Your task to perform on an android device: add a contact in the contacts app Image 0: 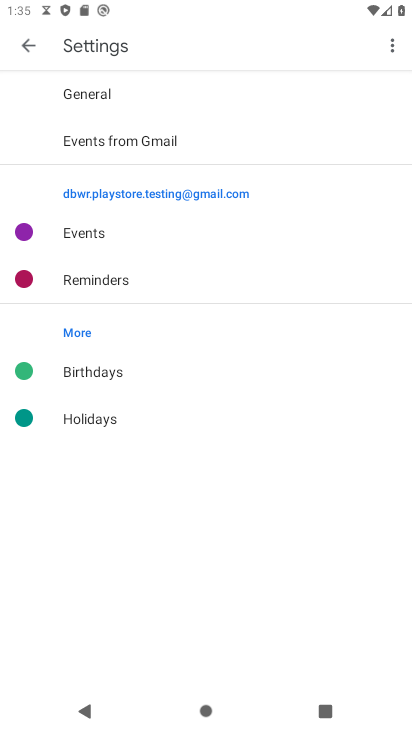
Step 0: press home button
Your task to perform on an android device: add a contact in the contacts app Image 1: 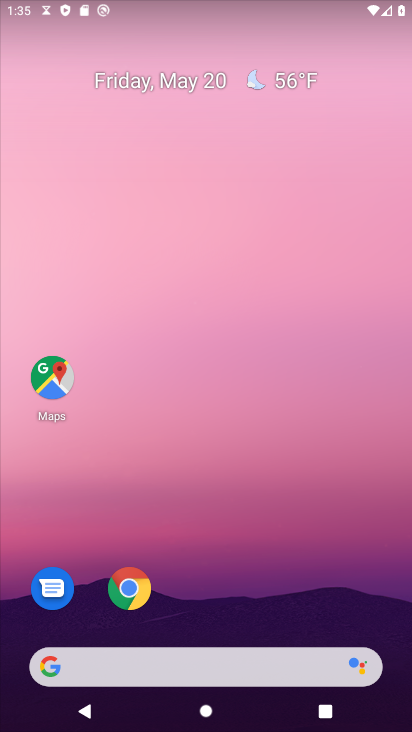
Step 1: drag from (26, 565) to (264, 48)
Your task to perform on an android device: add a contact in the contacts app Image 2: 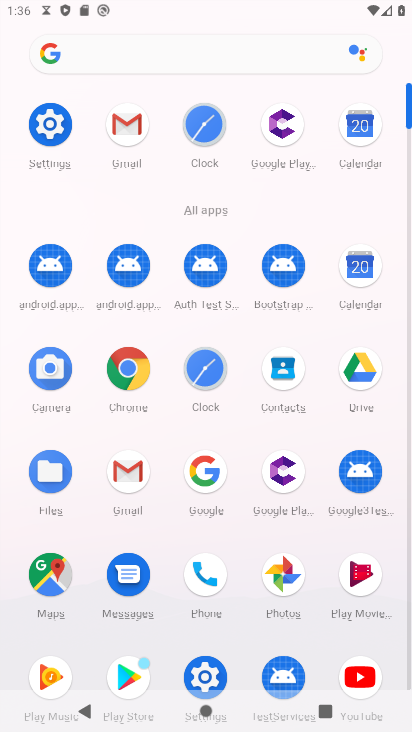
Step 2: click (206, 566)
Your task to perform on an android device: add a contact in the contacts app Image 3: 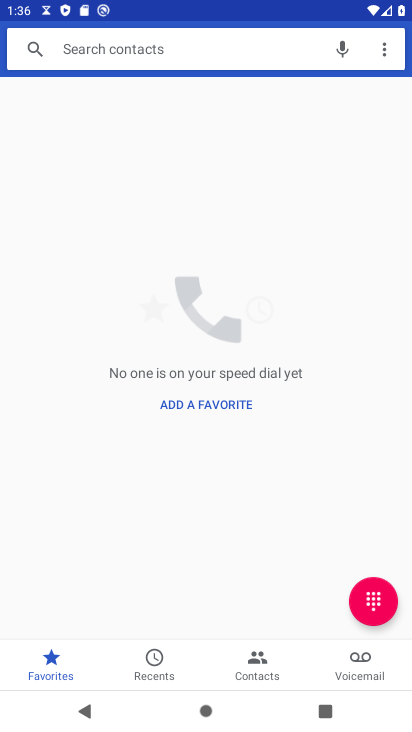
Step 3: click (266, 662)
Your task to perform on an android device: add a contact in the contacts app Image 4: 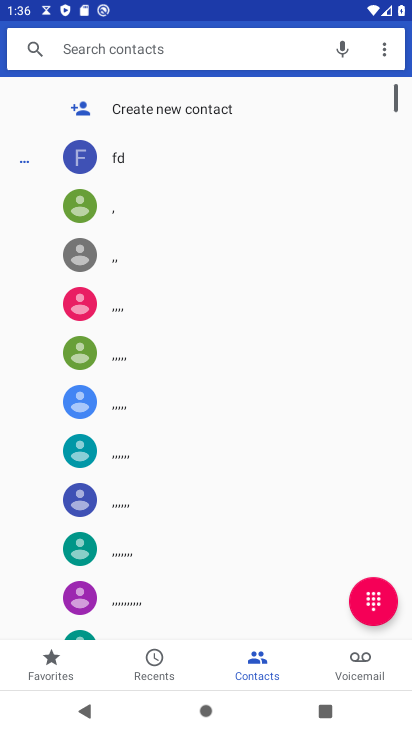
Step 4: click (171, 115)
Your task to perform on an android device: add a contact in the contacts app Image 5: 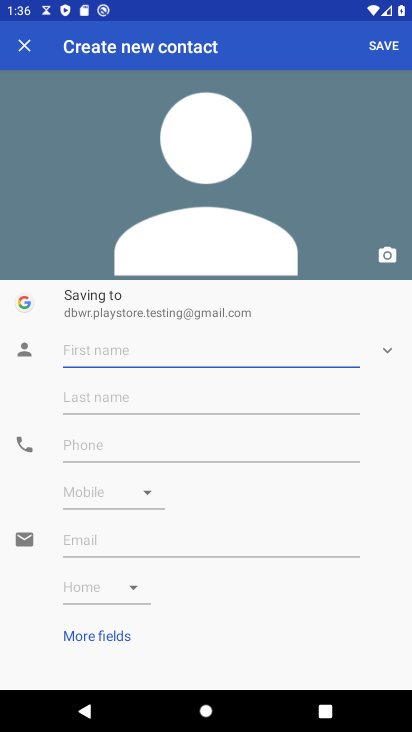
Step 5: click (138, 362)
Your task to perform on an android device: add a contact in the contacts app Image 6: 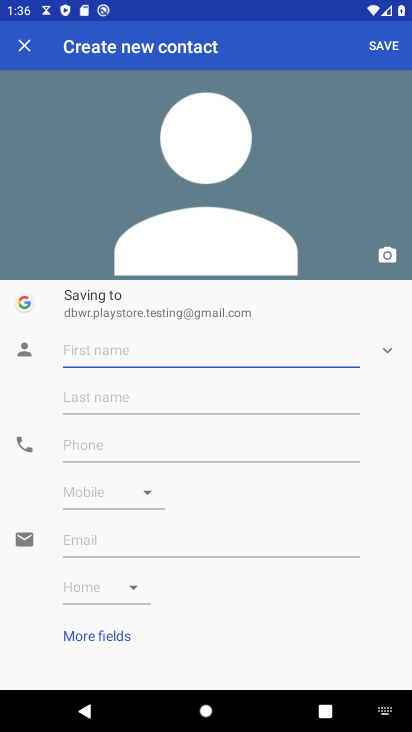
Step 6: type "hgfdsanb"
Your task to perform on an android device: add a contact in the contacts app Image 7: 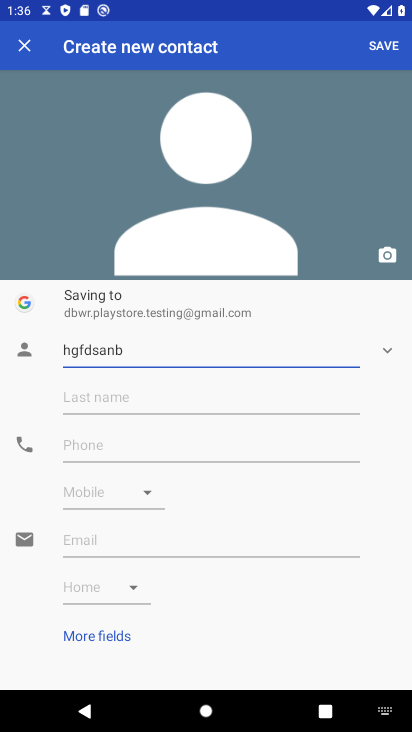
Step 7: click (388, 37)
Your task to perform on an android device: add a contact in the contacts app Image 8: 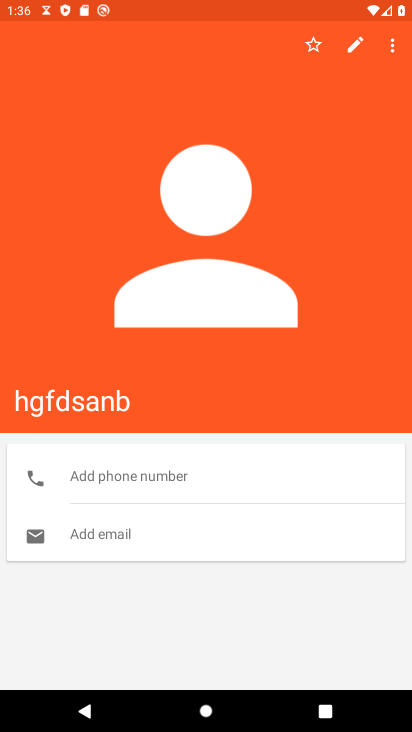
Step 8: task complete